Your task to perform on an android device: toggle javascript in the chrome app Image 0: 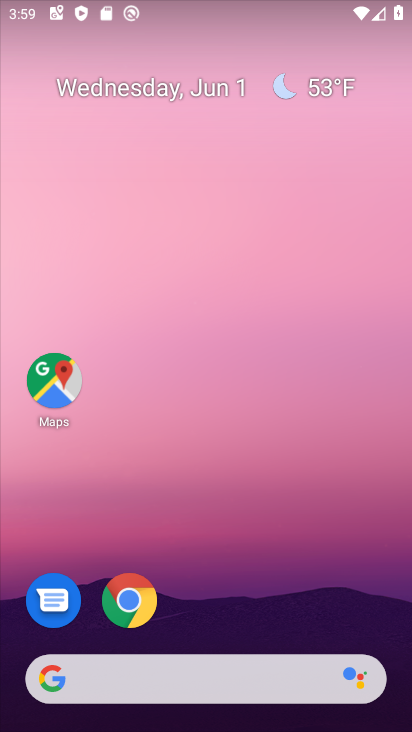
Step 0: click (131, 598)
Your task to perform on an android device: toggle javascript in the chrome app Image 1: 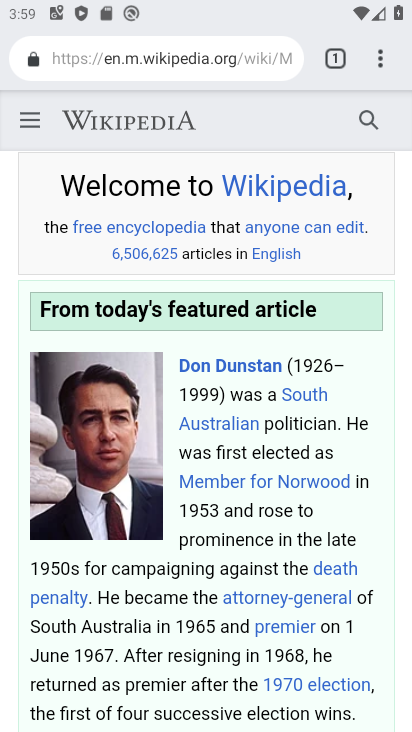
Step 1: click (382, 60)
Your task to perform on an android device: toggle javascript in the chrome app Image 2: 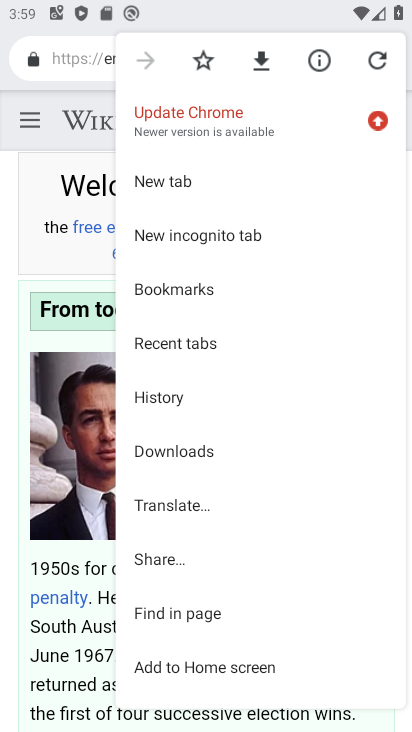
Step 2: drag from (280, 594) to (293, 107)
Your task to perform on an android device: toggle javascript in the chrome app Image 3: 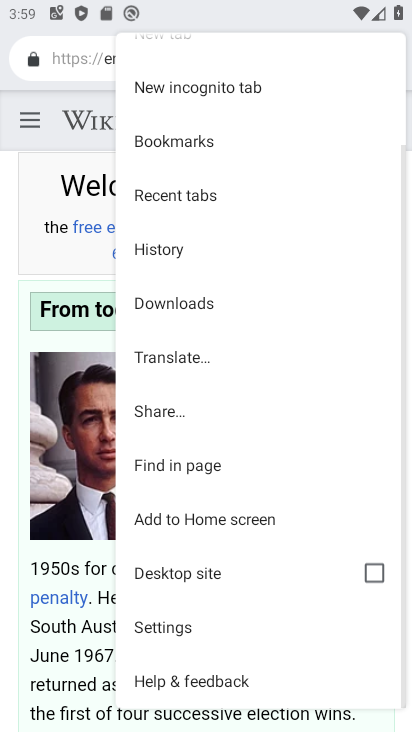
Step 3: click (165, 619)
Your task to perform on an android device: toggle javascript in the chrome app Image 4: 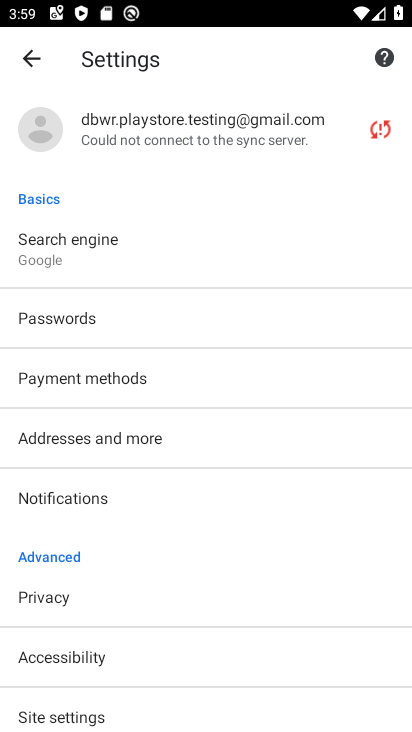
Step 4: drag from (221, 621) to (245, 186)
Your task to perform on an android device: toggle javascript in the chrome app Image 5: 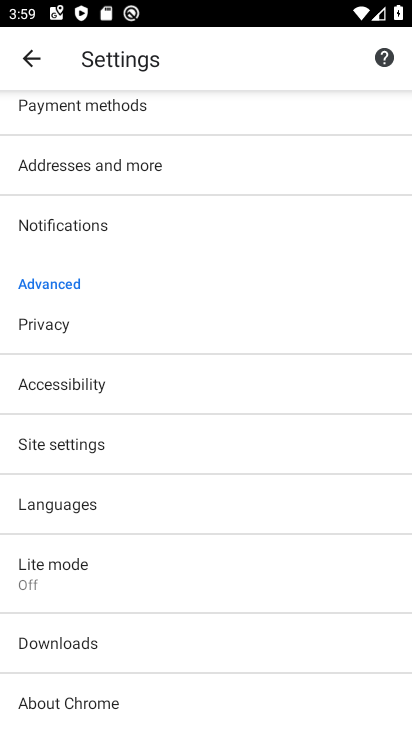
Step 5: click (73, 452)
Your task to perform on an android device: toggle javascript in the chrome app Image 6: 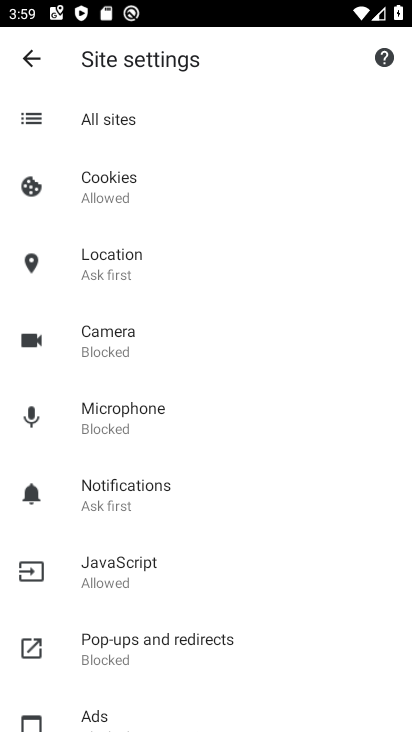
Step 6: click (95, 582)
Your task to perform on an android device: toggle javascript in the chrome app Image 7: 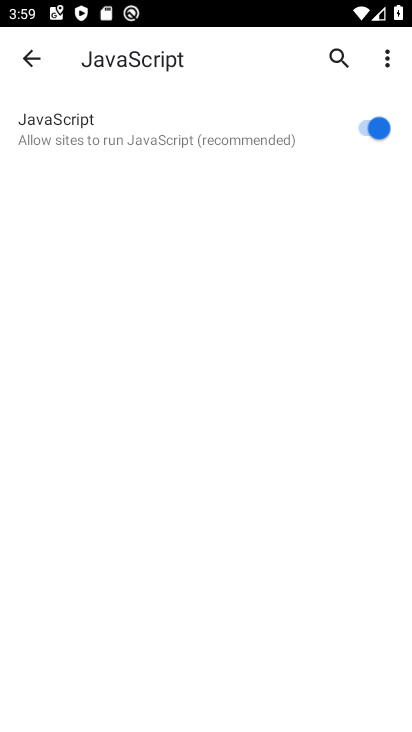
Step 7: click (363, 128)
Your task to perform on an android device: toggle javascript in the chrome app Image 8: 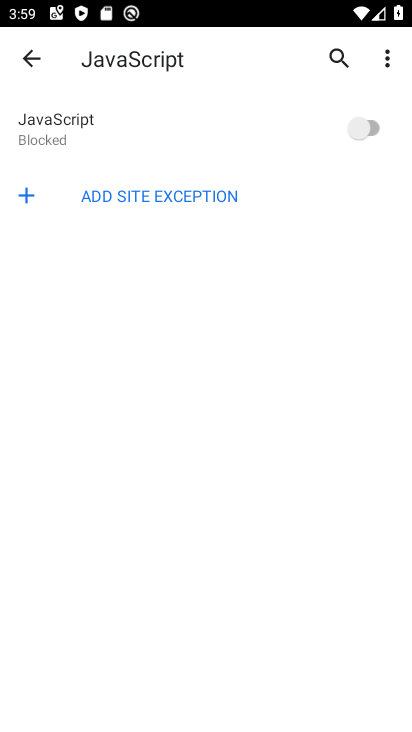
Step 8: task complete